Your task to perform on an android device: Go to Google Image 0: 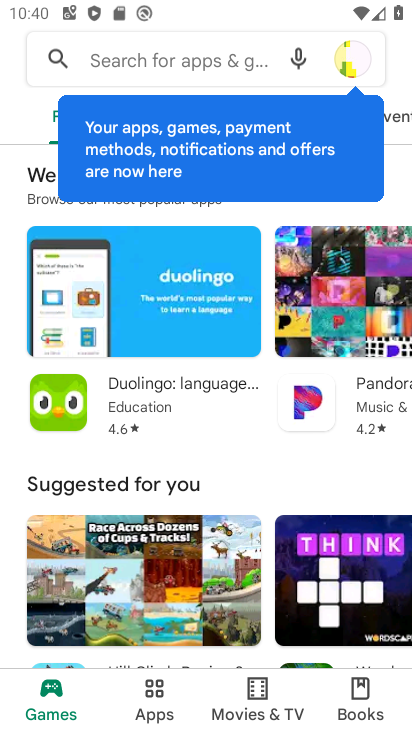
Step 0: press home button
Your task to perform on an android device: Go to Google Image 1: 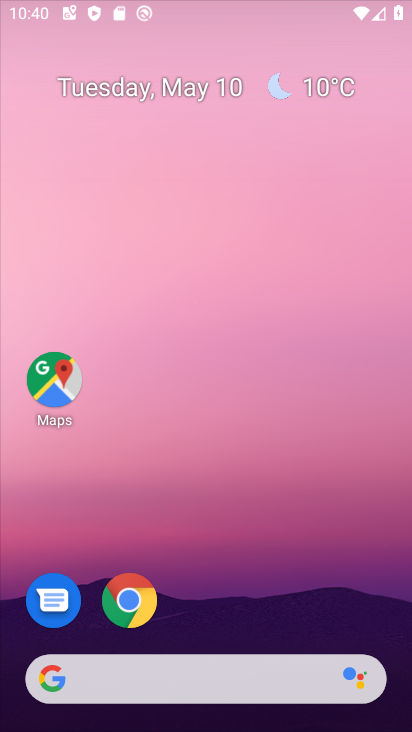
Step 1: drag from (242, 541) to (183, 137)
Your task to perform on an android device: Go to Google Image 2: 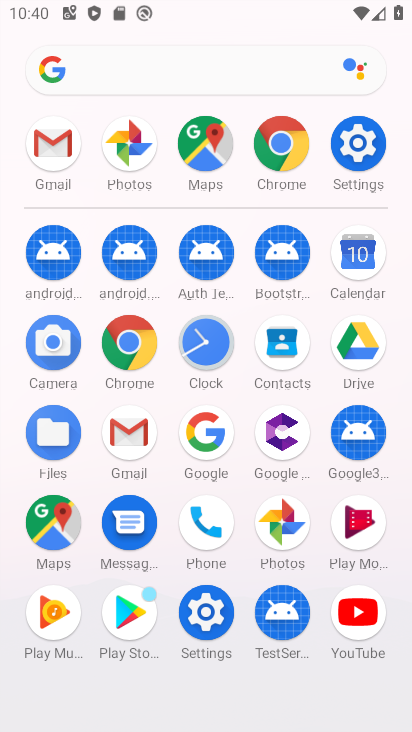
Step 2: click (199, 421)
Your task to perform on an android device: Go to Google Image 3: 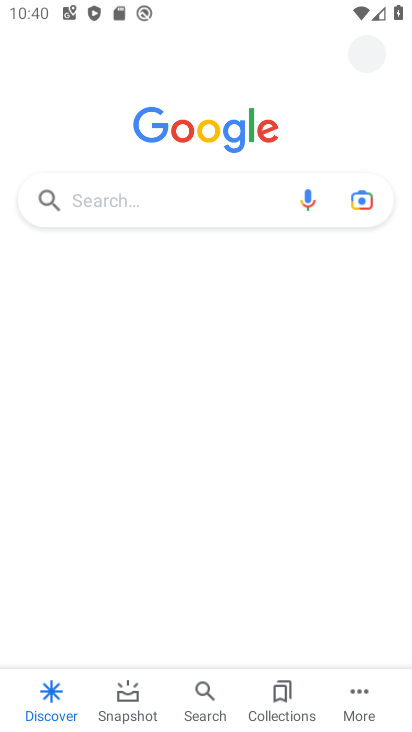
Step 3: task complete